Your task to perform on an android device: refresh tabs in the chrome app Image 0: 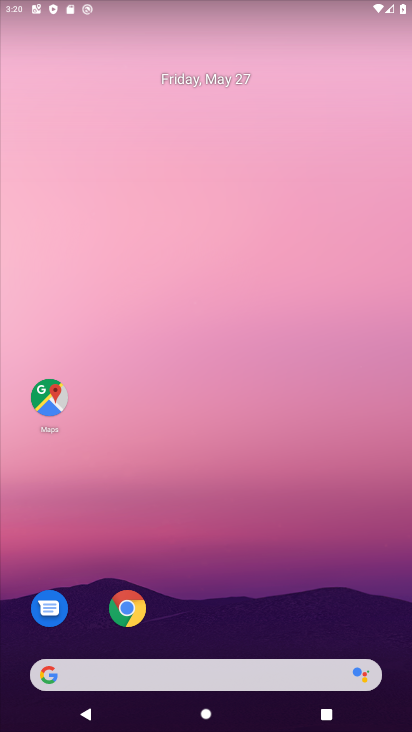
Step 0: click (128, 612)
Your task to perform on an android device: refresh tabs in the chrome app Image 1: 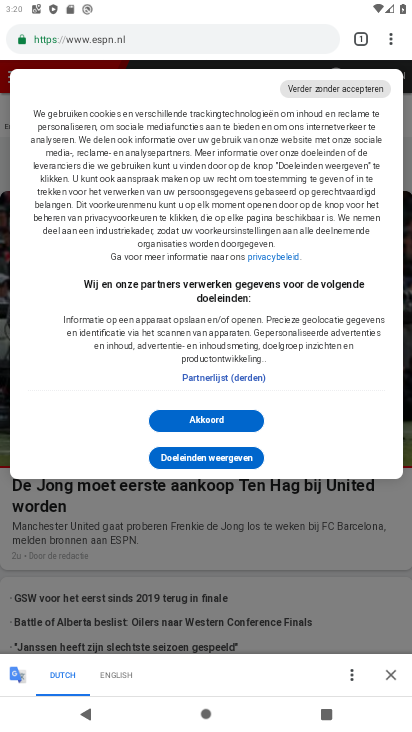
Step 1: click (391, 38)
Your task to perform on an android device: refresh tabs in the chrome app Image 2: 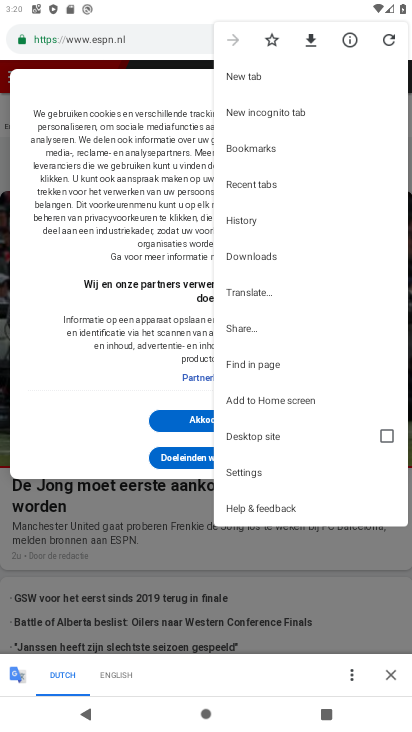
Step 2: click (394, 41)
Your task to perform on an android device: refresh tabs in the chrome app Image 3: 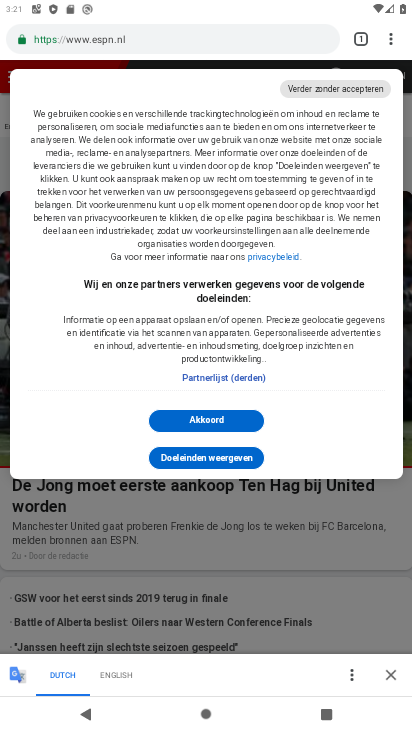
Step 3: task complete